Your task to perform on an android device: Go to sound settings Image 0: 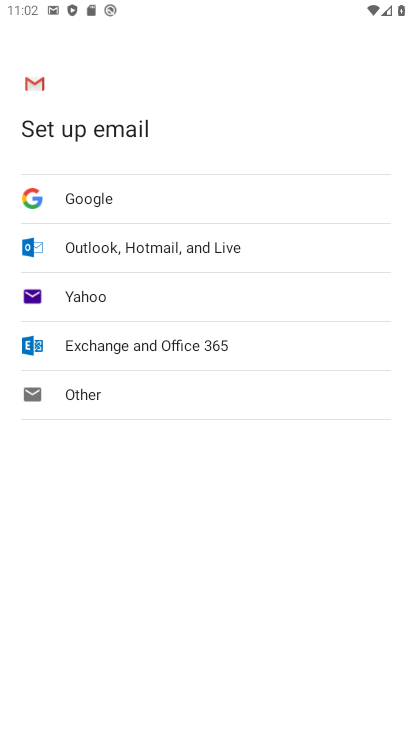
Step 0: press home button
Your task to perform on an android device: Go to sound settings Image 1: 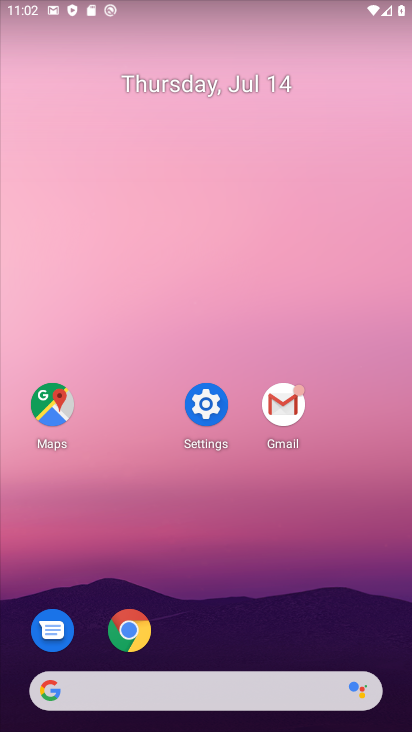
Step 1: click (199, 408)
Your task to perform on an android device: Go to sound settings Image 2: 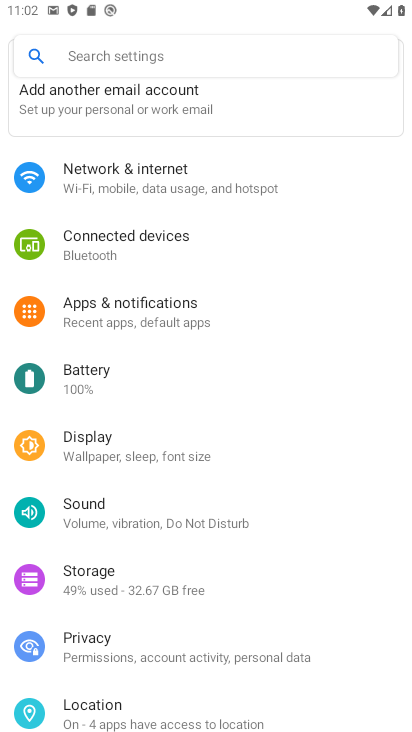
Step 2: click (75, 508)
Your task to perform on an android device: Go to sound settings Image 3: 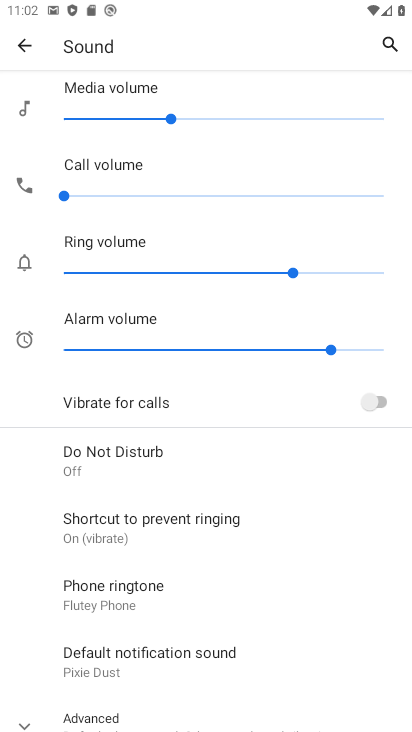
Step 3: click (93, 451)
Your task to perform on an android device: Go to sound settings Image 4: 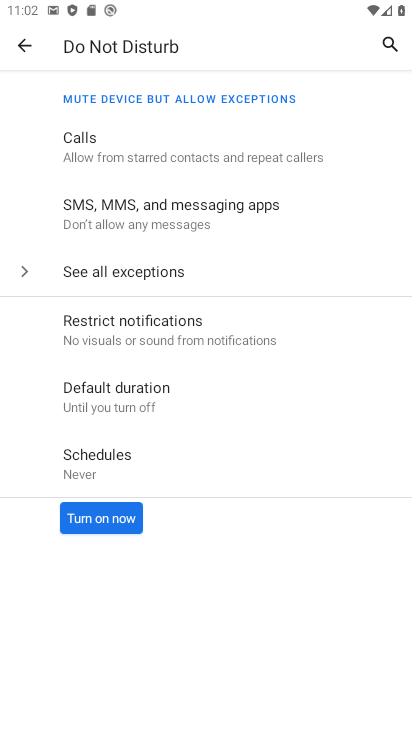
Step 4: click (26, 39)
Your task to perform on an android device: Go to sound settings Image 5: 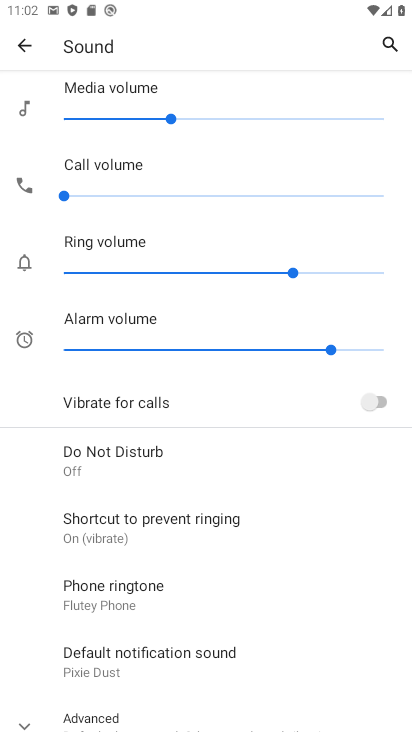
Step 5: task complete